Your task to perform on an android device: check out phone information Image 0: 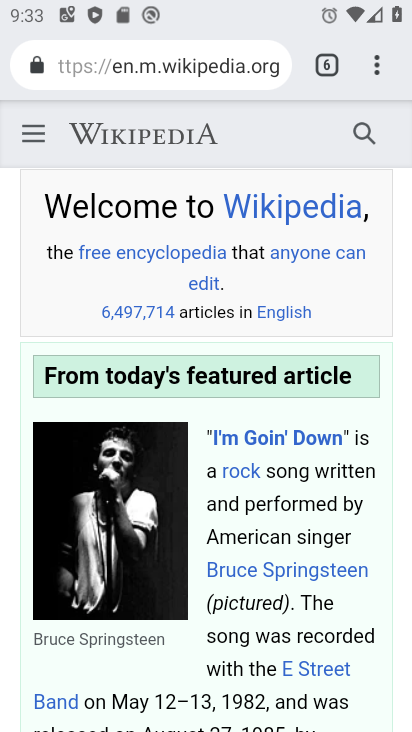
Step 0: press home button
Your task to perform on an android device: check out phone information Image 1: 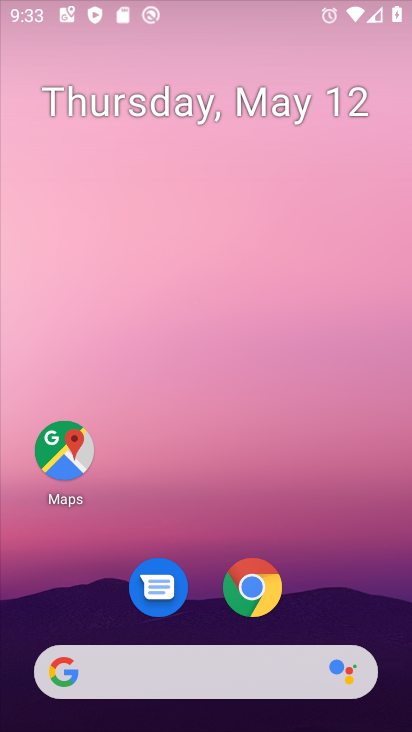
Step 1: drag from (239, 682) to (278, 333)
Your task to perform on an android device: check out phone information Image 2: 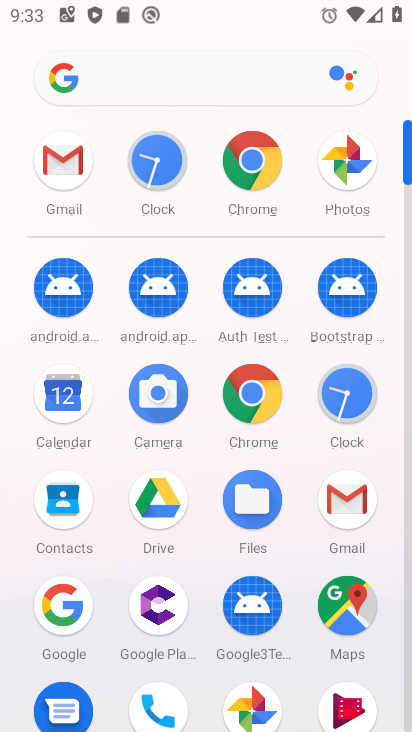
Step 2: drag from (283, 550) to (309, 159)
Your task to perform on an android device: check out phone information Image 3: 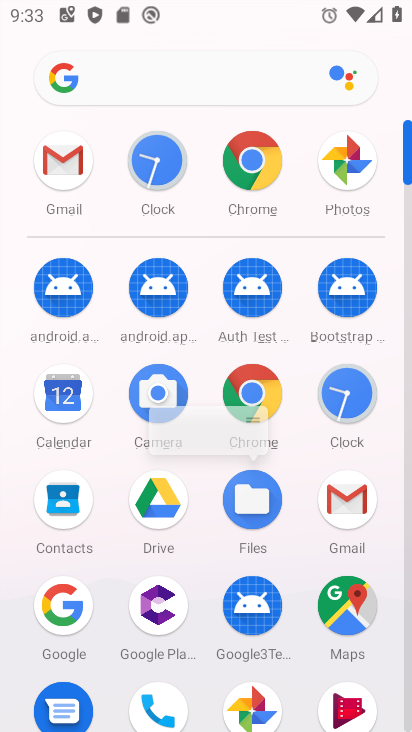
Step 3: drag from (232, 634) to (260, 429)
Your task to perform on an android device: check out phone information Image 4: 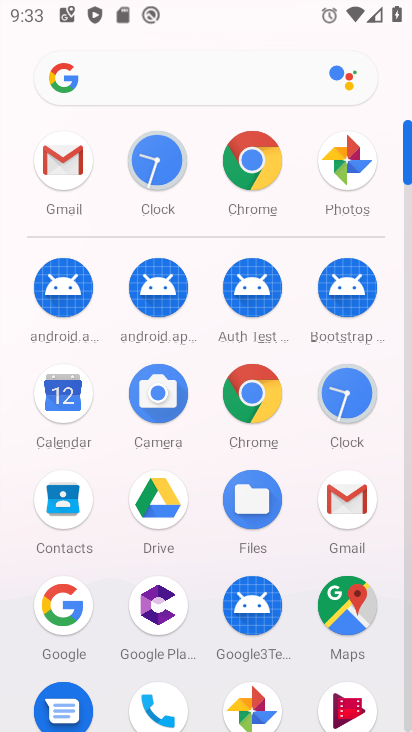
Step 4: drag from (244, 597) to (297, 289)
Your task to perform on an android device: check out phone information Image 5: 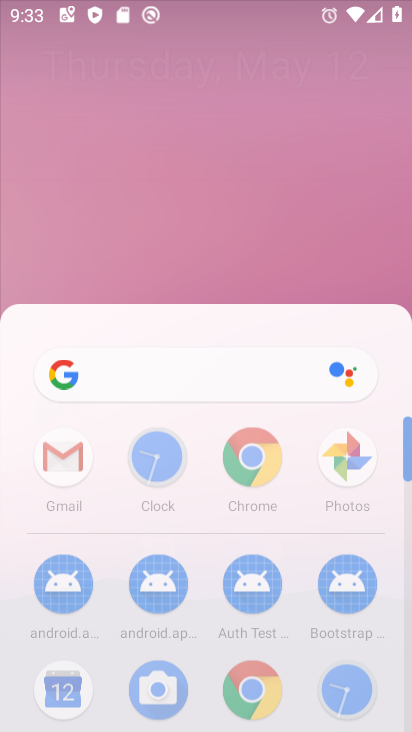
Step 5: drag from (223, 576) to (271, 363)
Your task to perform on an android device: check out phone information Image 6: 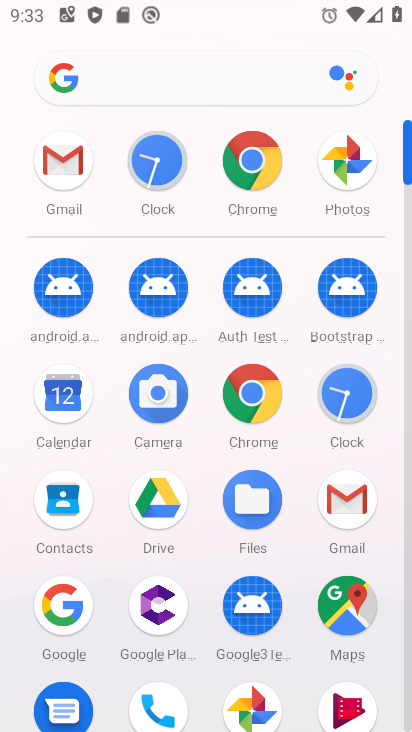
Step 6: drag from (288, 644) to (303, 193)
Your task to perform on an android device: check out phone information Image 7: 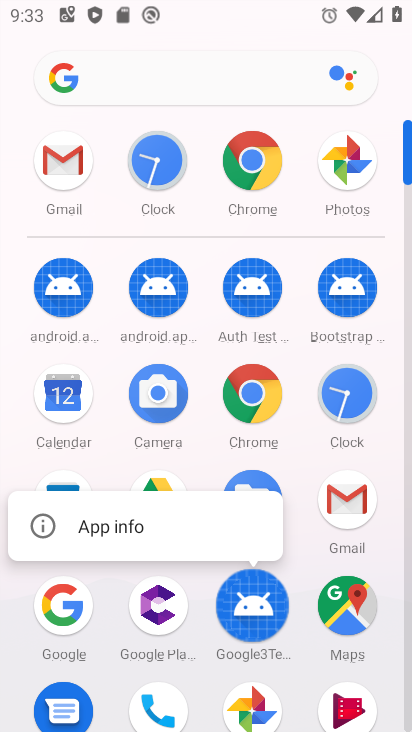
Step 7: drag from (291, 575) to (304, 284)
Your task to perform on an android device: check out phone information Image 8: 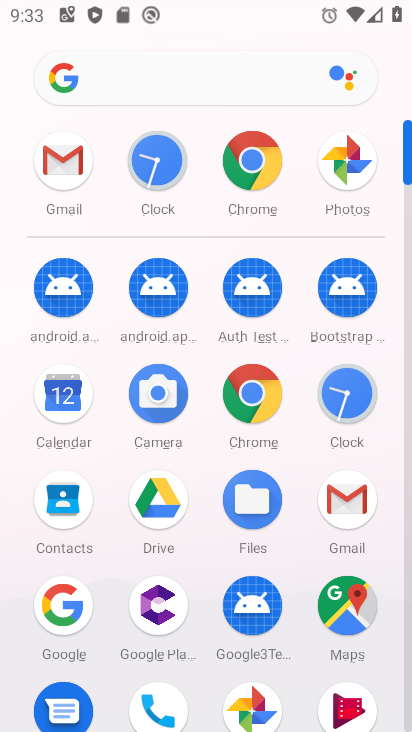
Step 8: drag from (230, 528) to (286, 260)
Your task to perform on an android device: check out phone information Image 9: 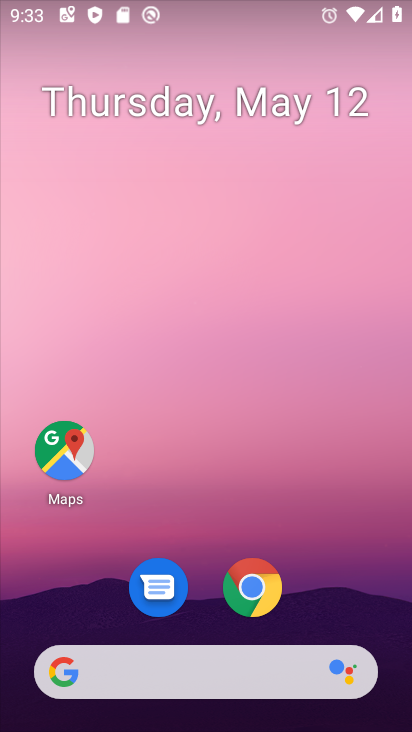
Step 9: drag from (279, 548) to (283, 356)
Your task to perform on an android device: check out phone information Image 10: 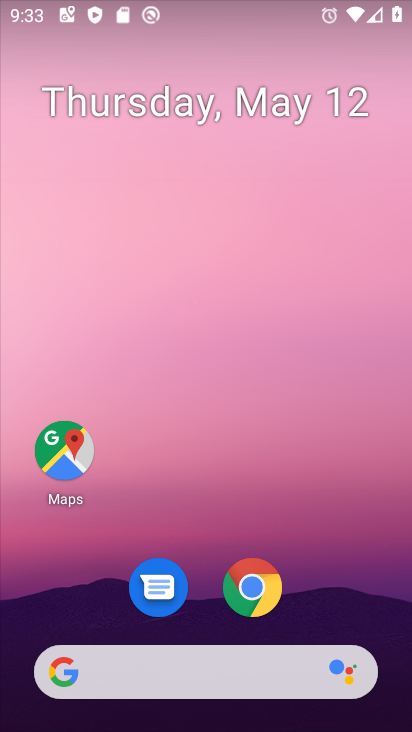
Step 10: drag from (220, 563) to (259, 336)
Your task to perform on an android device: check out phone information Image 11: 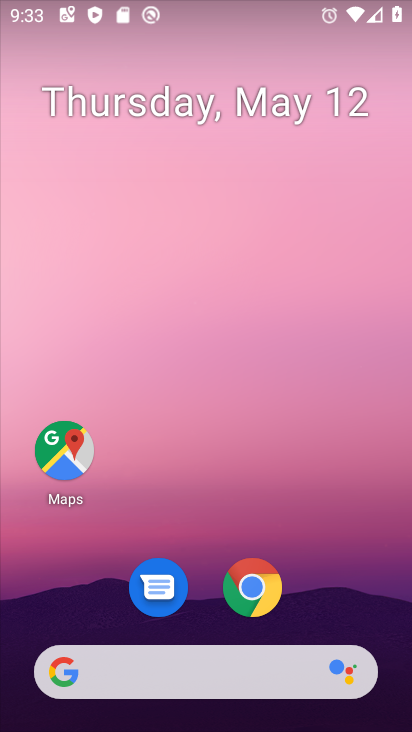
Step 11: drag from (185, 670) to (259, 247)
Your task to perform on an android device: check out phone information Image 12: 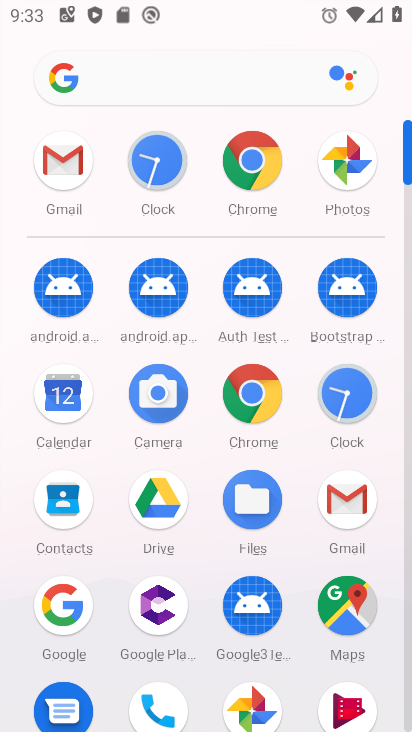
Step 12: drag from (177, 646) to (264, 166)
Your task to perform on an android device: check out phone information Image 13: 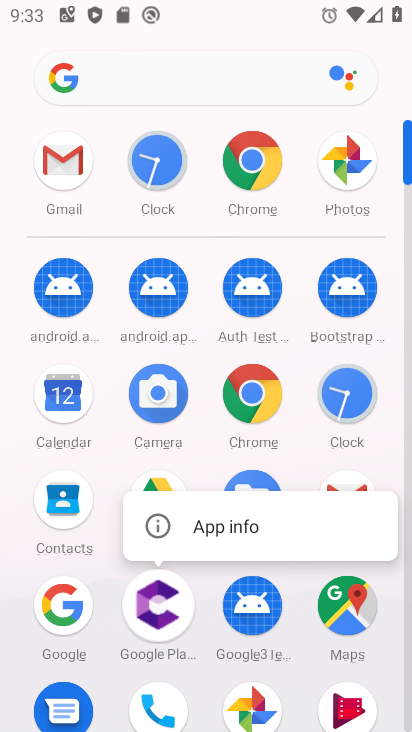
Step 13: drag from (247, 663) to (303, 310)
Your task to perform on an android device: check out phone information Image 14: 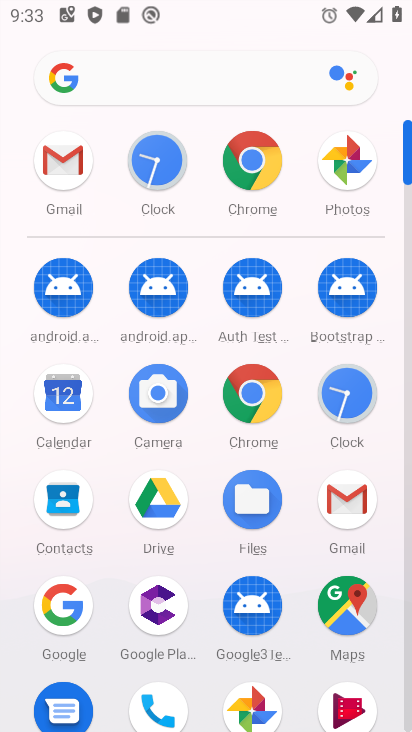
Step 14: drag from (290, 495) to (311, 107)
Your task to perform on an android device: check out phone information Image 15: 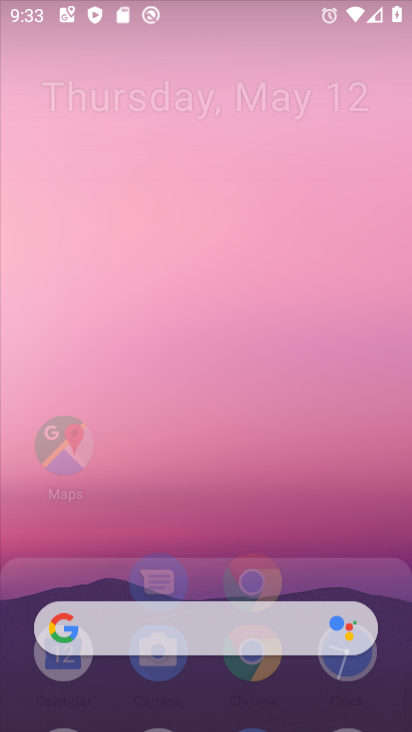
Step 15: drag from (251, 567) to (321, 128)
Your task to perform on an android device: check out phone information Image 16: 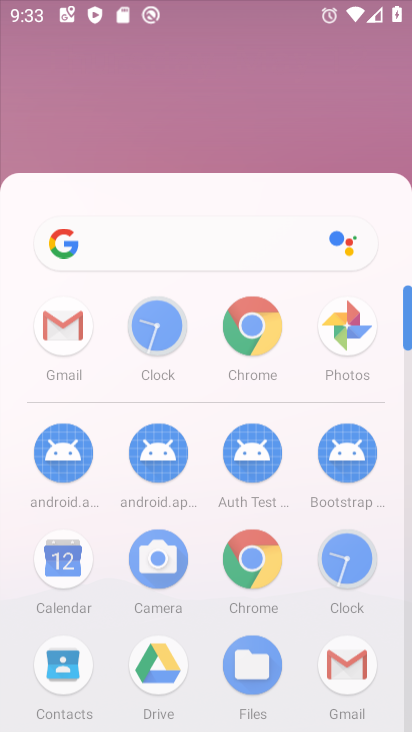
Step 16: drag from (241, 565) to (293, 220)
Your task to perform on an android device: check out phone information Image 17: 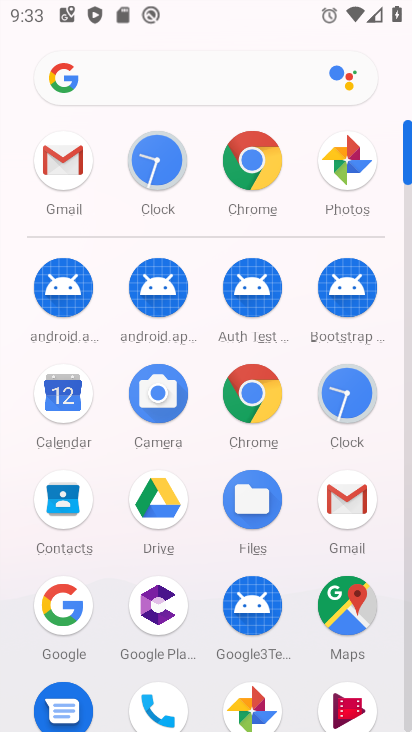
Step 17: drag from (201, 548) to (333, 70)
Your task to perform on an android device: check out phone information Image 18: 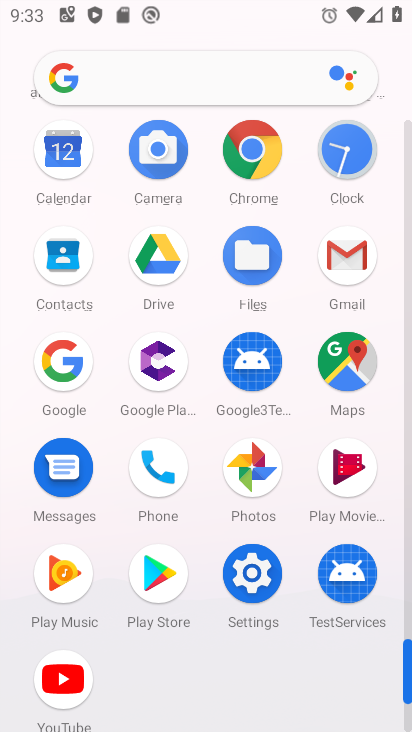
Step 18: click (244, 584)
Your task to perform on an android device: check out phone information Image 19: 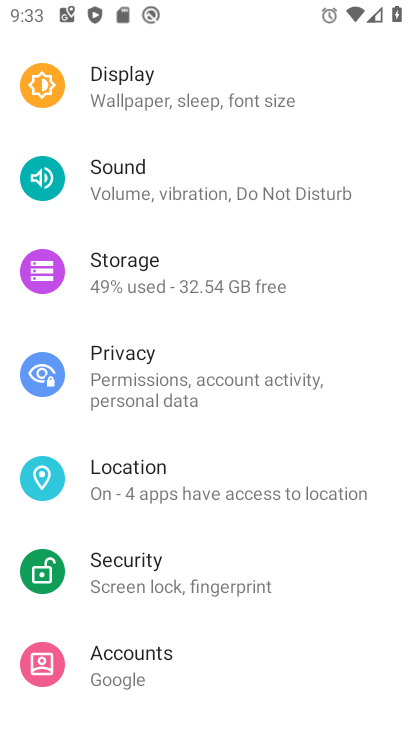
Step 19: drag from (263, 673) to (335, 60)
Your task to perform on an android device: check out phone information Image 20: 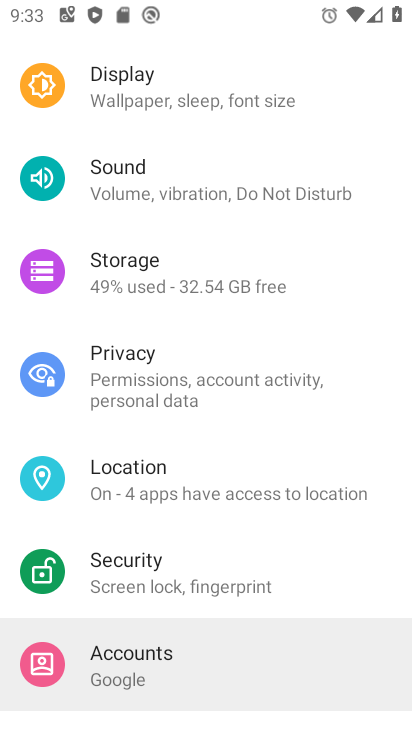
Step 20: drag from (356, 580) to (370, 189)
Your task to perform on an android device: check out phone information Image 21: 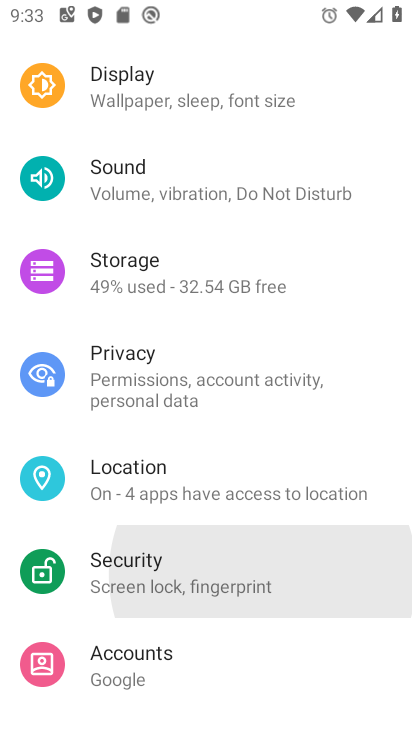
Step 21: drag from (300, 526) to (282, 73)
Your task to perform on an android device: check out phone information Image 22: 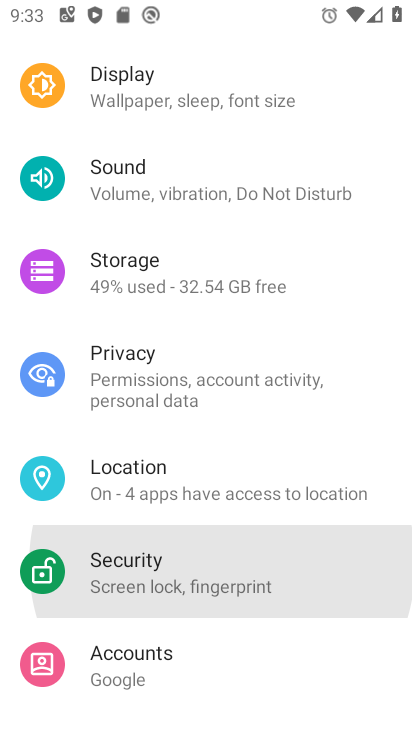
Step 22: drag from (172, 430) to (220, 126)
Your task to perform on an android device: check out phone information Image 23: 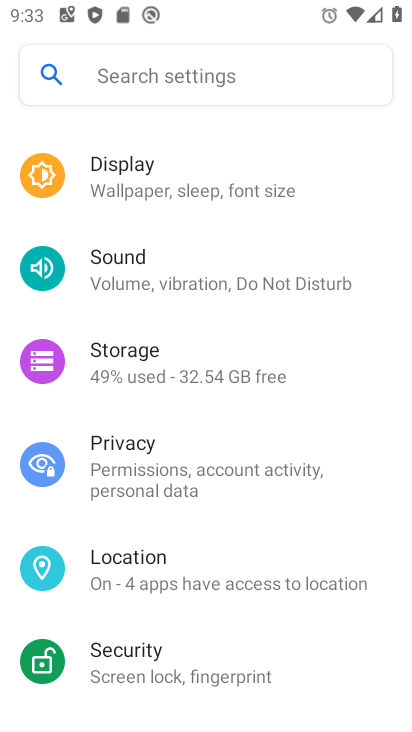
Step 23: drag from (131, 579) to (206, 153)
Your task to perform on an android device: check out phone information Image 24: 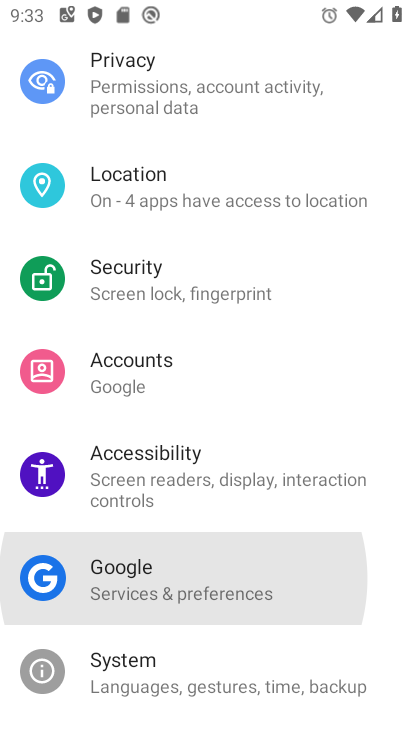
Step 24: drag from (144, 703) to (248, 320)
Your task to perform on an android device: check out phone information Image 25: 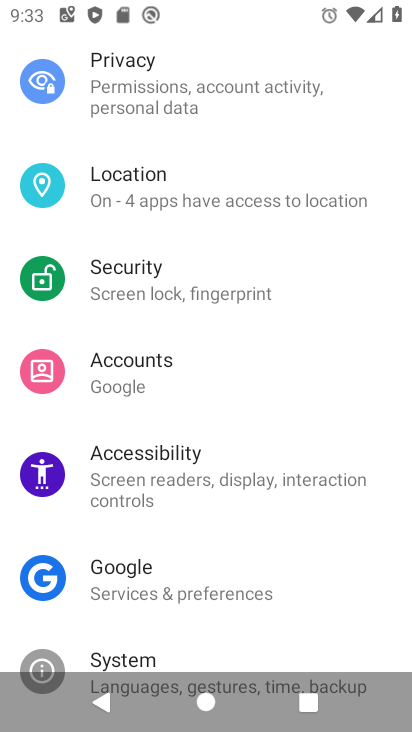
Step 25: drag from (231, 589) to (299, 269)
Your task to perform on an android device: check out phone information Image 26: 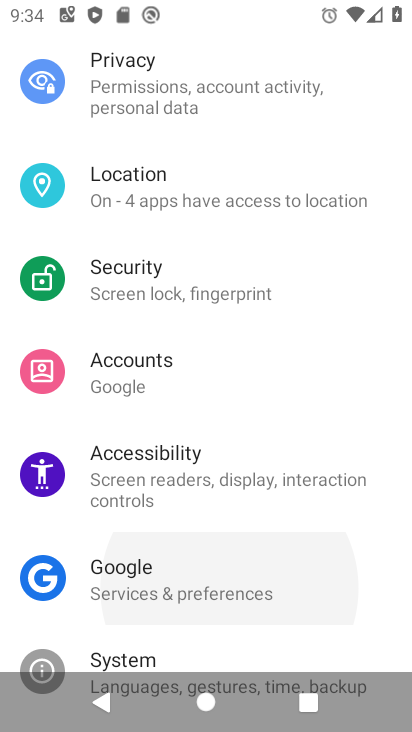
Step 26: drag from (241, 624) to (276, 244)
Your task to perform on an android device: check out phone information Image 27: 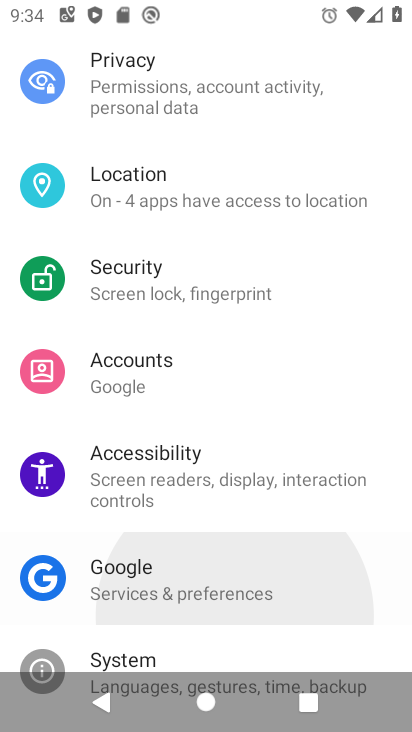
Step 27: drag from (217, 570) to (267, 203)
Your task to perform on an android device: check out phone information Image 28: 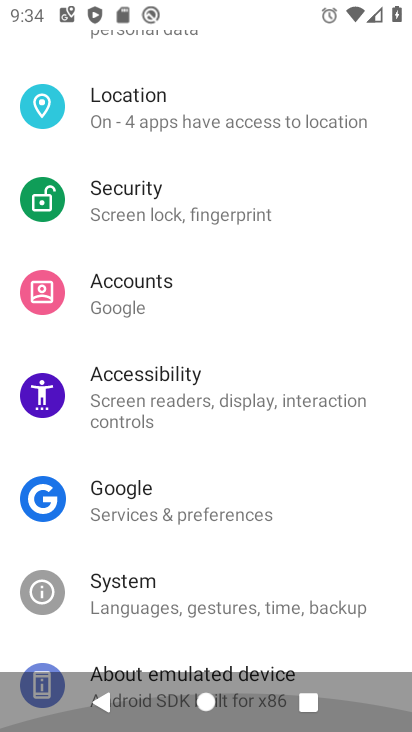
Step 28: drag from (212, 570) to (294, 96)
Your task to perform on an android device: check out phone information Image 29: 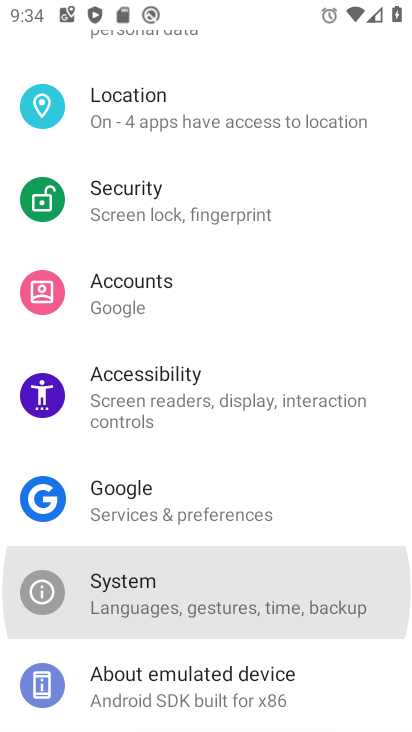
Step 29: drag from (227, 456) to (278, 118)
Your task to perform on an android device: check out phone information Image 30: 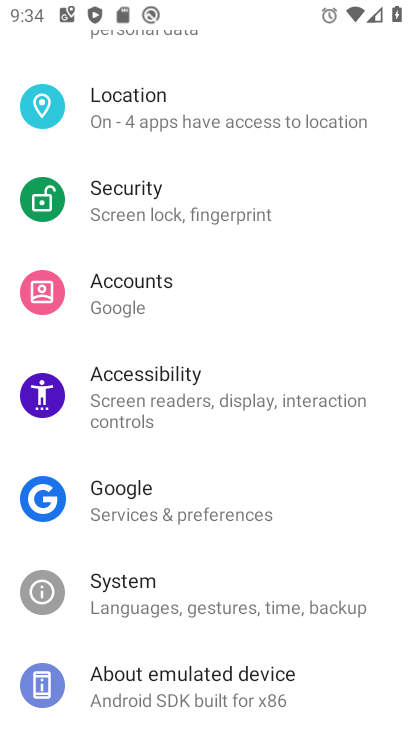
Step 30: click (205, 678)
Your task to perform on an android device: check out phone information Image 31: 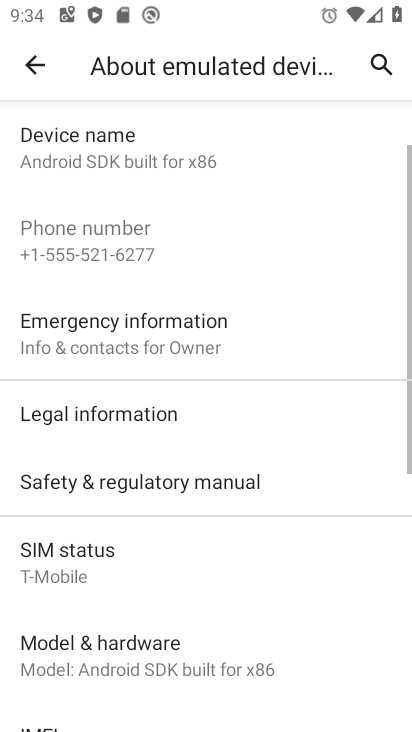
Step 31: click (187, 335)
Your task to perform on an android device: check out phone information Image 32: 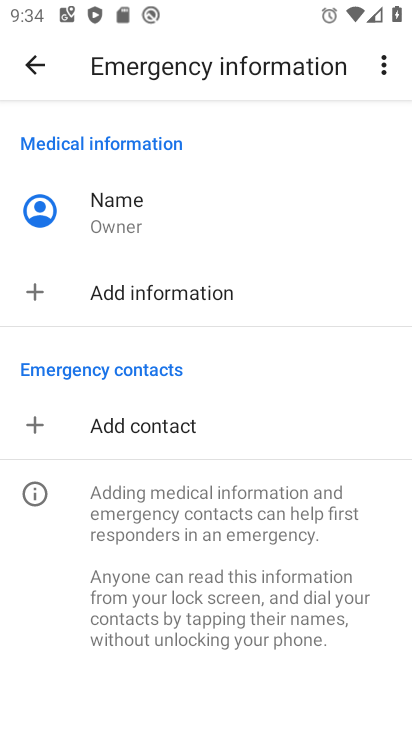
Step 32: click (33, 49)
Your task to perform on an android device: check out phone information Image 33: 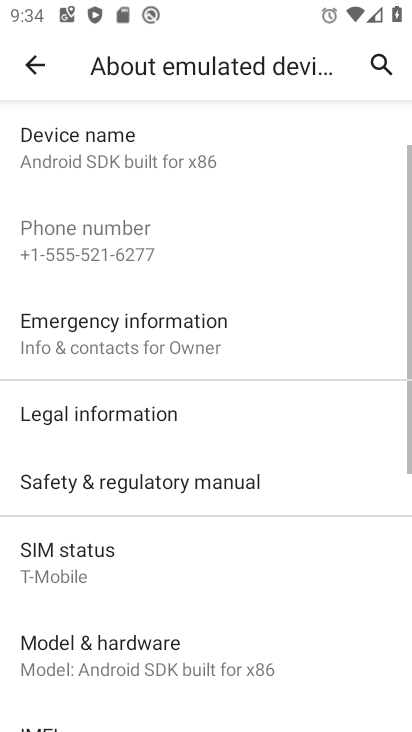
Step 33: task complete